Your task to perform on an android device: Open eBay Image 0: 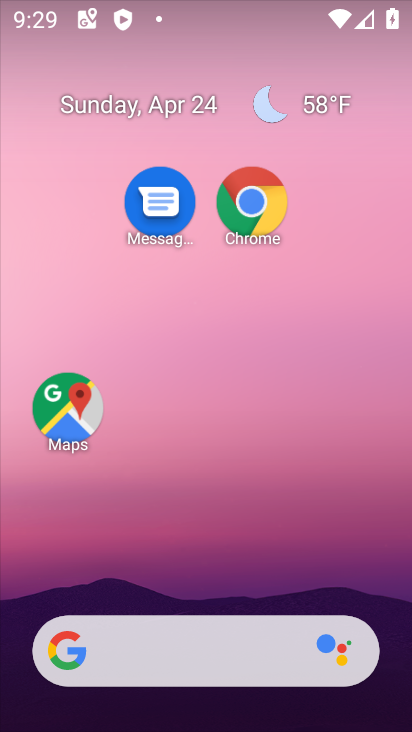
Step 0: click (252, 197)
Your task to perform on an android device: Open eBay Image 1: 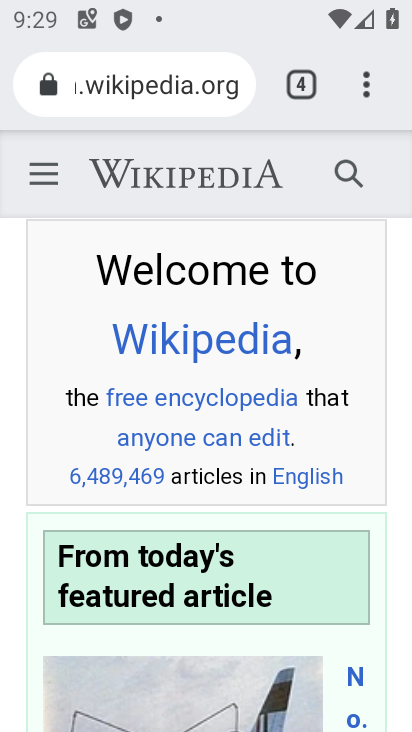
Step 1: drag from (366, 85) to (88, 274)
Your task to perform on an android device: Open eBay Image 2: 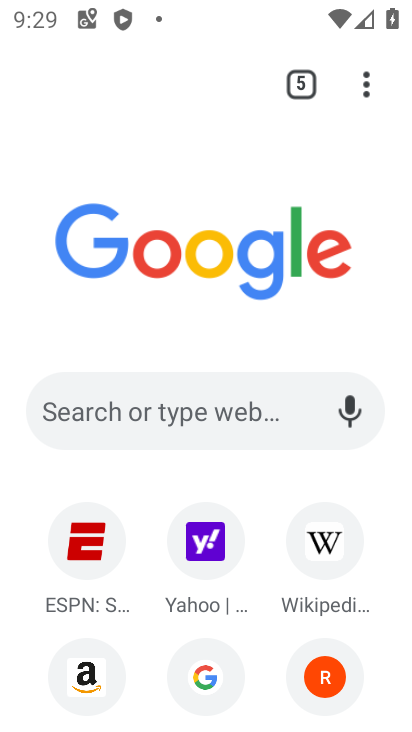
Step 2: click (129, 409)
Your task to perform on an android device: Open eBay Image 3: 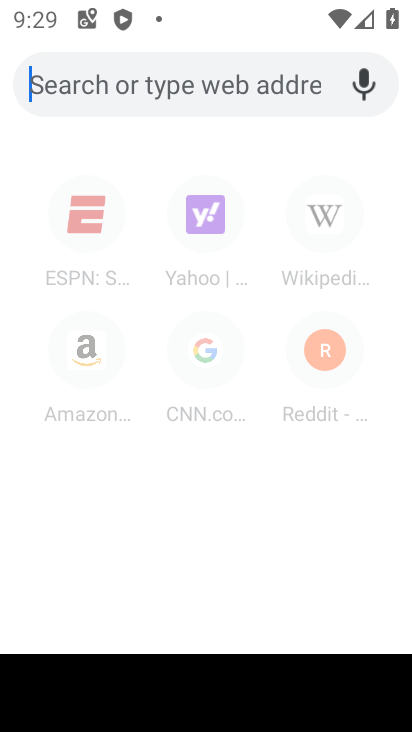
Step 3: type "eBay"
Your task to perform on an android device: Open eBay Image 4: 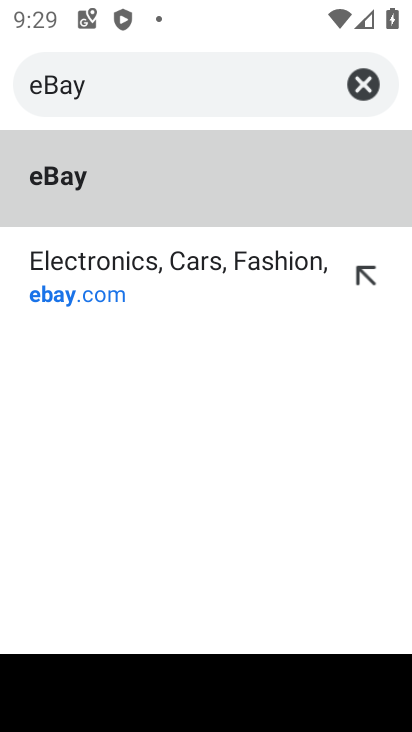
Step 4: click (88, 176)
Your task to perform on an android device: Open eBay Image 5: 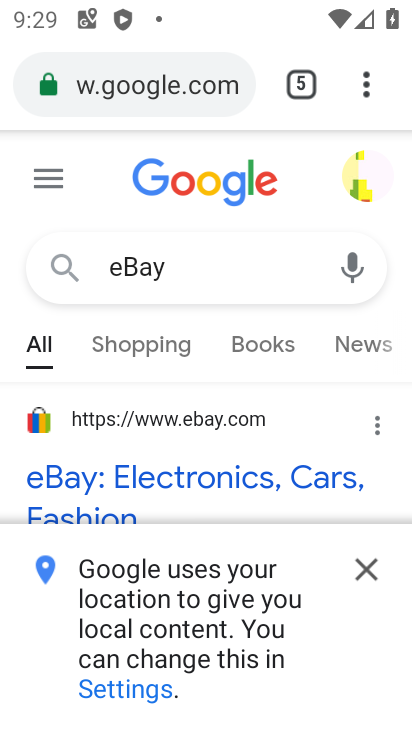
Step 5: click (122, 475)
Your task to perform on an android device: Open eBay Image 6: 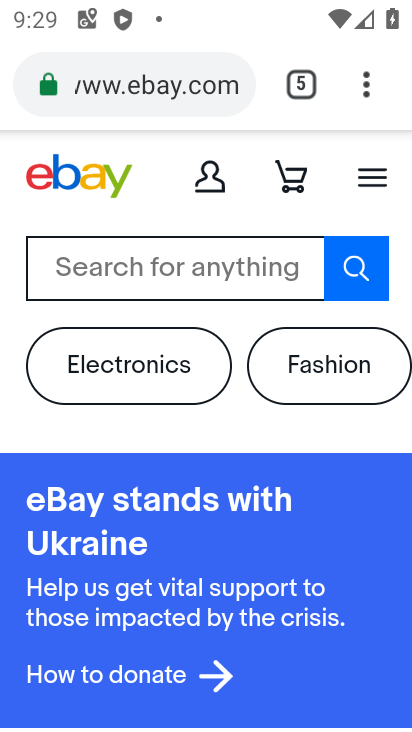
Step 6: task complete